Your task to perform on an android device: turn off javascript in the chrome app Image 0: 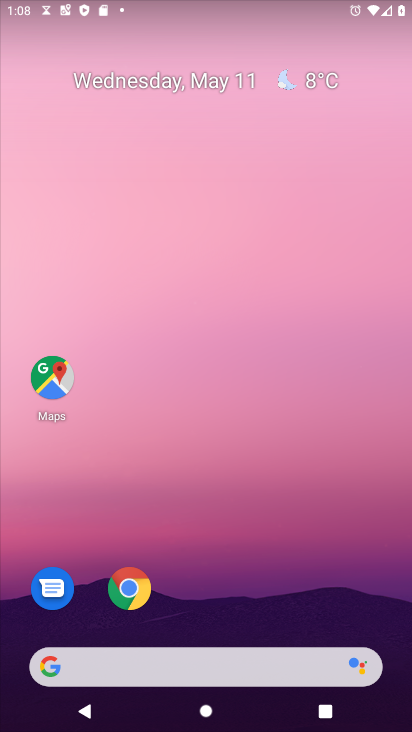
Step 0: click (125, 600)
Your task to perform on an android device: turn off javascript in the chrome app Image 1: 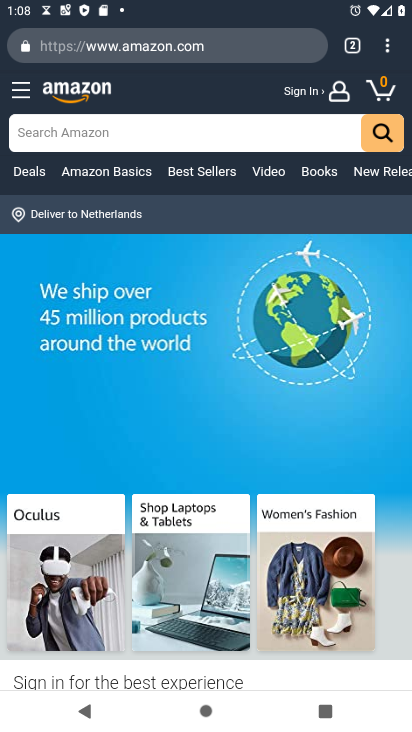
Step 1: drag from (389, 50) to (253, 546)
Your task to perform on an android device: turn off javascript in the chrome app Image 2: 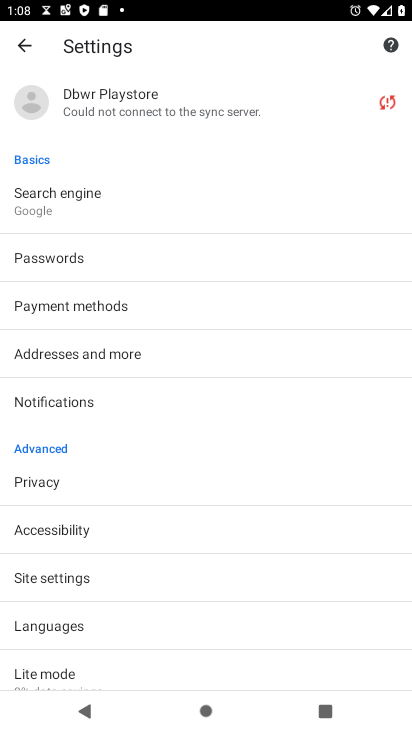
Step 2: click (51, 580)
Your task to perform on an android device: turn off javascript in the chrome app Image 3: 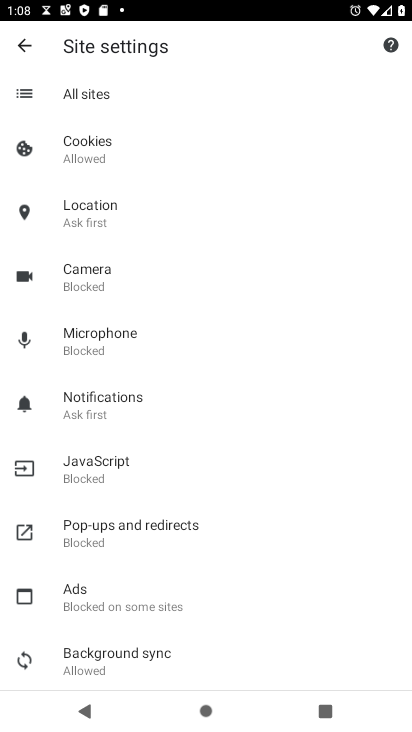
Step 3: click (86, 470)
Your task to perform on an android device: turn off javascript in the chrome app Image 4: 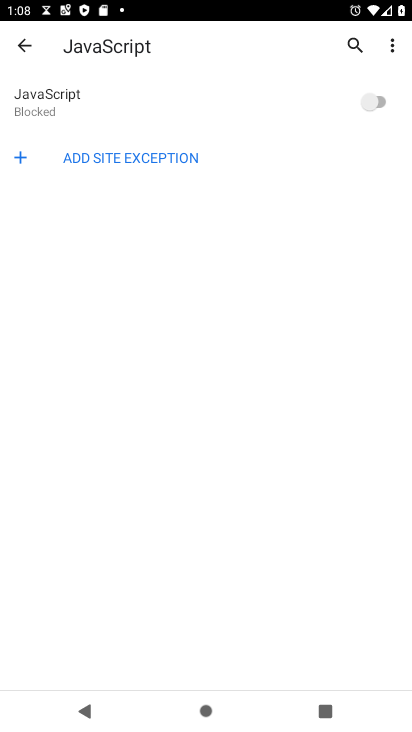
Step 4: task complete